Your task to perform on an android device: What's the weather going to be this weekend? Image 0: 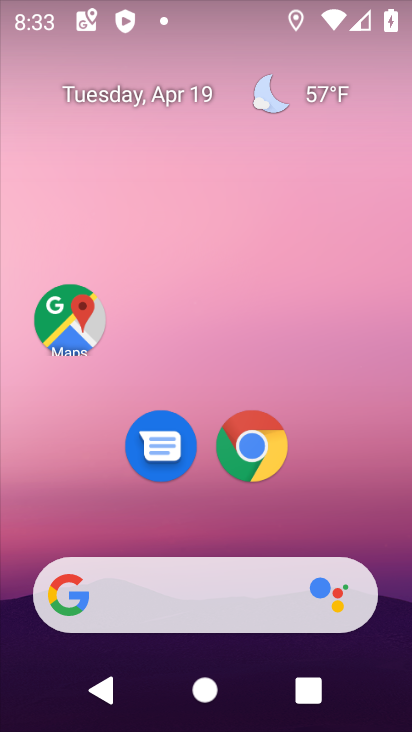
Step 0: click (263, 444)
Your task to perform on an android device: What's the weather going to be this weekend? Image 1: 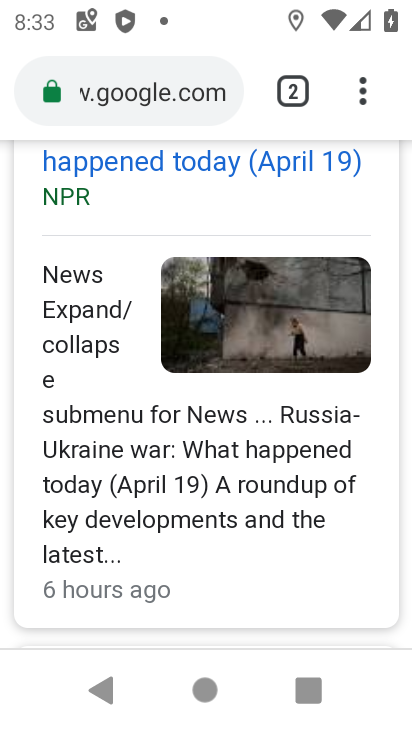
Step 1: click (288, 94)
Your task to perform on an android device: What's the weather going to be this weekend? Image 2: 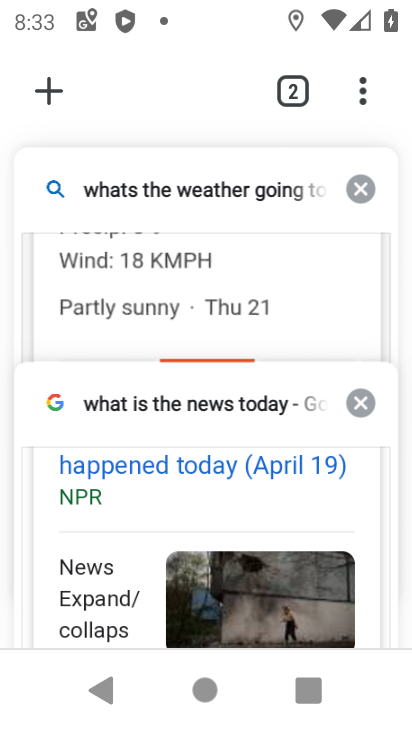
Step 2: click (337, 290)
Your task to perform on an android device: What's the weather going to be this weekend? Image 3: 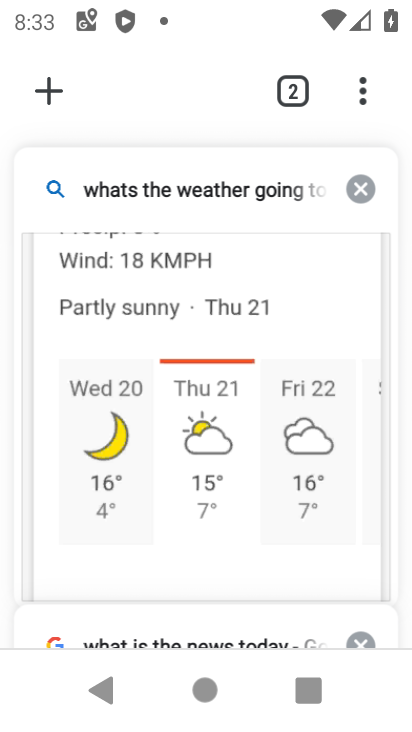
Step 3: drag from (326, 453) to (245, 398)
Your task to perform on an android device: What's the weather going to be this weekend? Image 4: 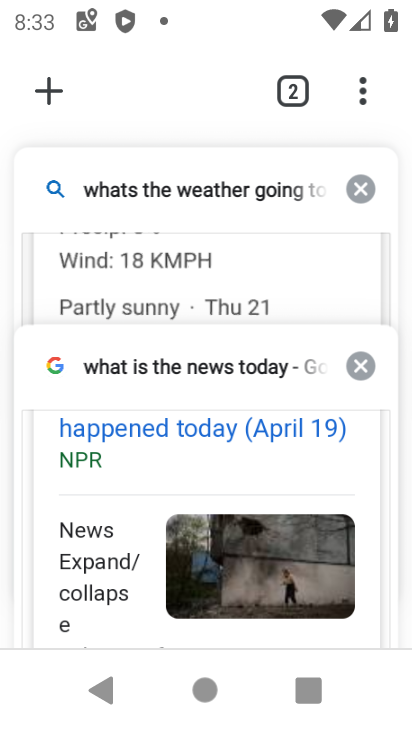
Step 4: click (43, 79)
Your task to perform on an android device: What's the weather going to be this weekend? Image 5: 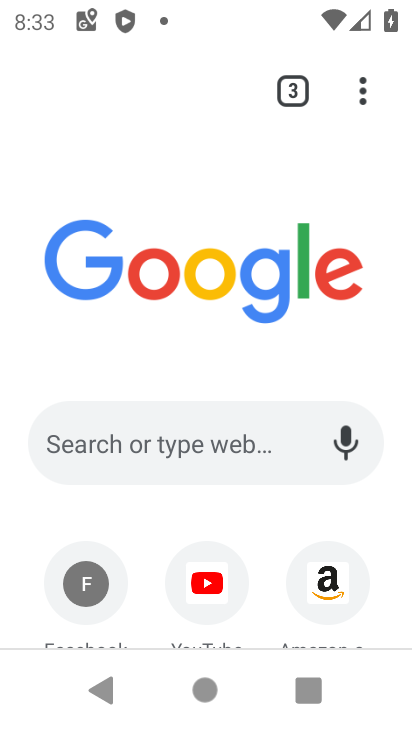
Step 5: click (96, 448)
Your task to perform on an android device: What's the weather going to be this weekend? Image 6: 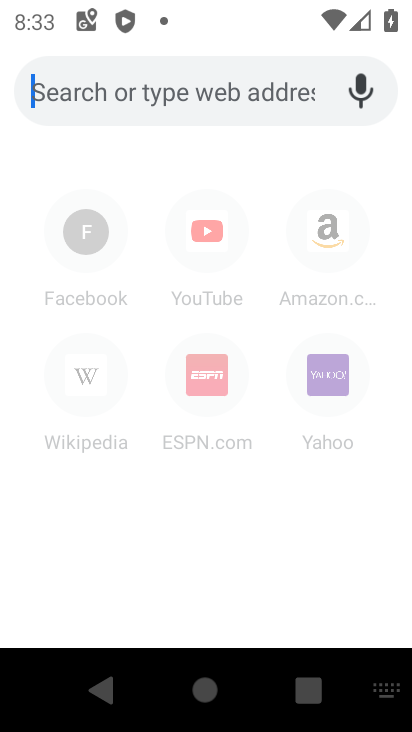
Step 6: type "whats the weather going to be this weekend"
Your task to perform on an android device: What's the weather going to be this weekend? Image 7: 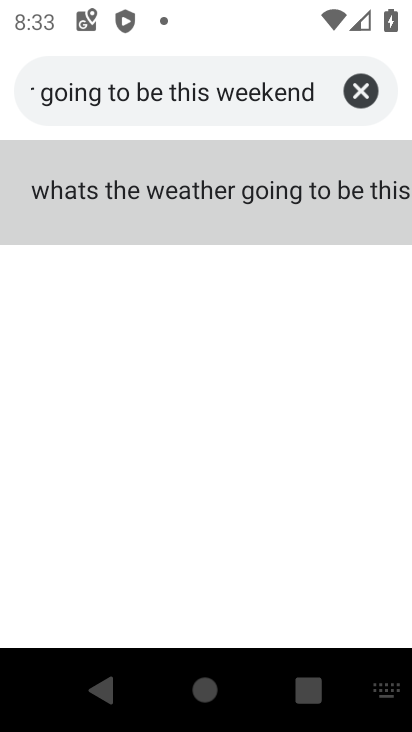
Step 7: click (232, 194)
Your task to perform on an android device: What's the weather going to be this weekend? Image 8: 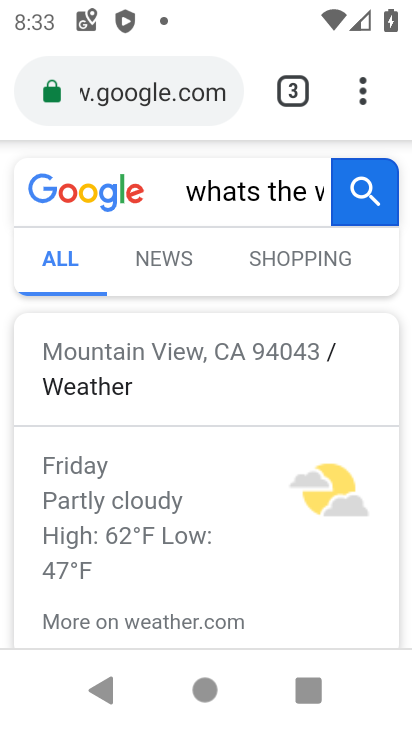
Step 8: drag from (177, 571) to (167, 210)
Your task to perform on an android device: What's the weather going to be this weekend? Image 9: 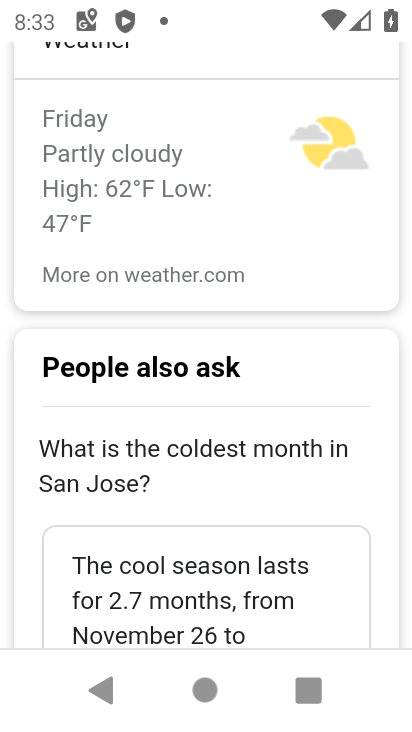
Step 9: drag from (183, 584) to (186, 282)
Your task to perform on an android device: What's the weather going to be this weekend? Image 10: 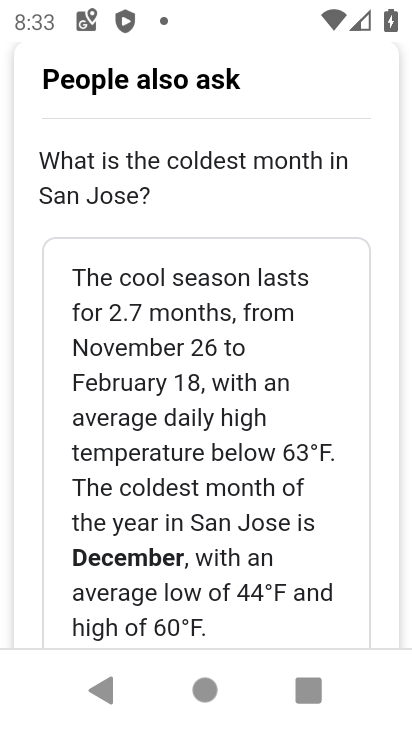
Step 10: drag from (212, 560) to (226, 229)
Your task to perform on an android device: What's the weather going to be this weekend? Image 11: 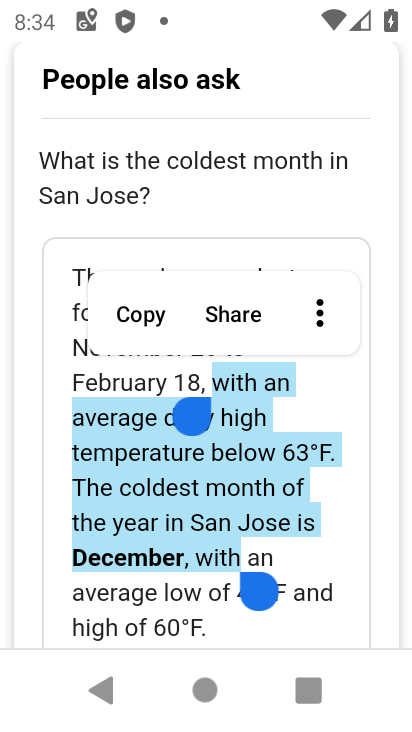
Step 11: drag from (364, 572) to (339, 113)
Your task to perform on an android device: What's the weather going to be this weekend? Image 12: 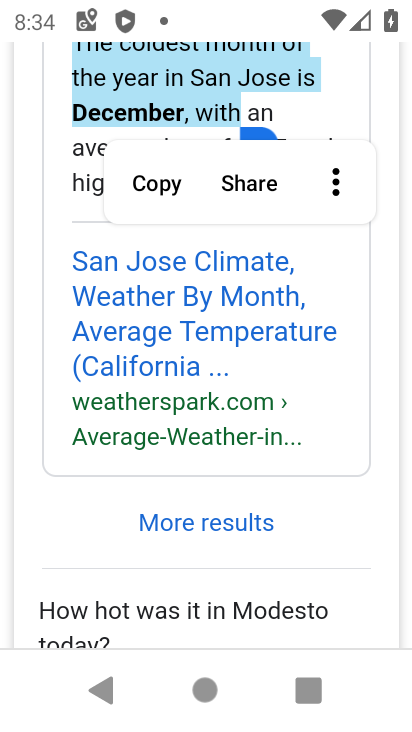
Step 12: drag from (327, 558) to (287, 501)
Your task to perform on an android device: What's the weather going to be this weekend? Image 13: 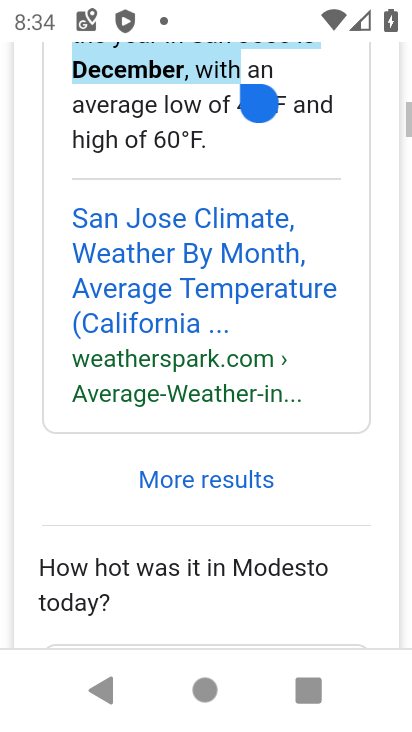
Step 13: drag from (332, 228) to (301, 543)
Your task to perform on an android device: What's the weather going to be this weekend? Image 14: 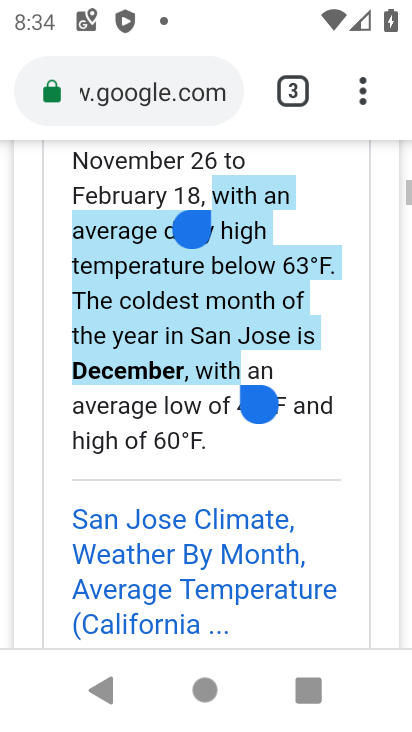
Step 14: drag from (347, 219) to (315, 640)
Your task to perform on an android device: What's the weather going to be this weekend? Image 15: 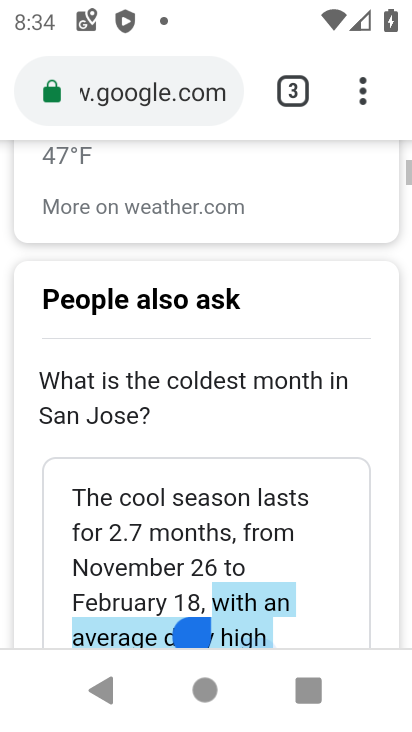
Step 15: drag from (315, 220) to (277, 514)
Your task to perform on an android device: What's the weather going to be this weekend? Image 16: 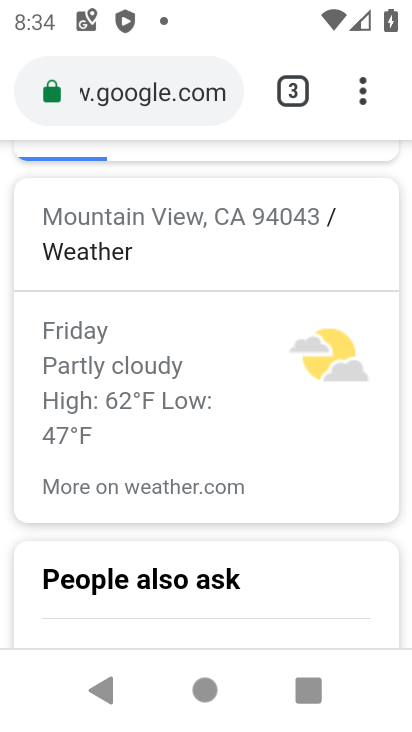
Step 16: click (123, 481)
Your task to perform on an android device: What's the weather going to be this weekend? Image 17: 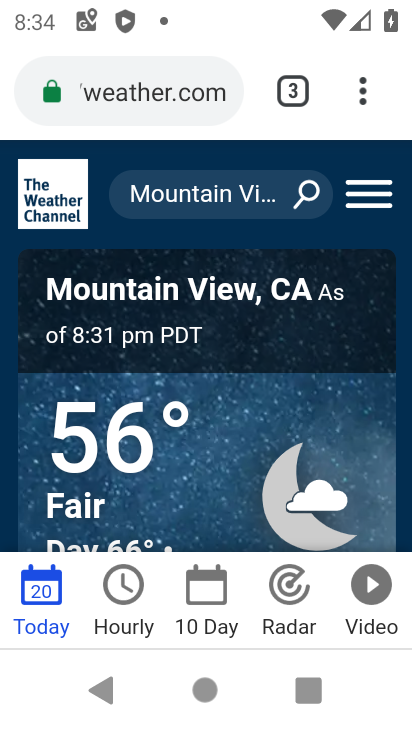
Step 17: drag from (135, 531) to (146, 237)
Your task to perform on an android device: What's the weather going to be this weekend? Image 18: 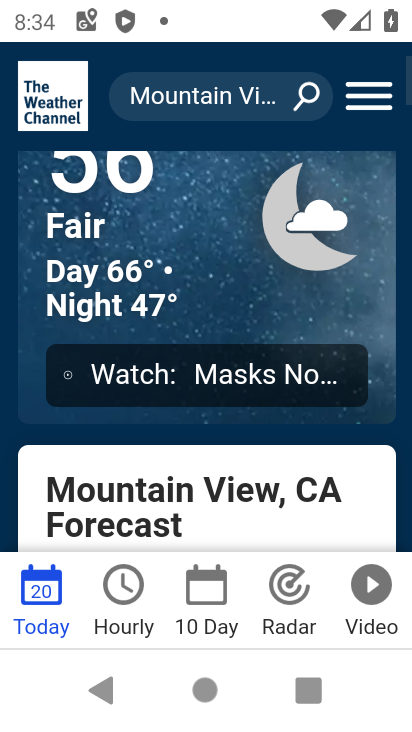
Step 18: drag from (211, 373) to (220, 218)
Your task to perform on an android device: What's the weather going to be this weekend? Image 19: 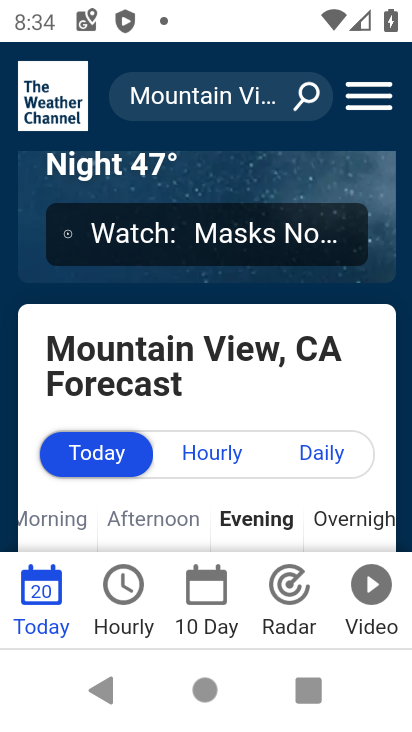
Step 19: drag from (219, 505) to (248, 263)
Your task to perform on an android device: What's the weather going to be this weekend? Image 20: 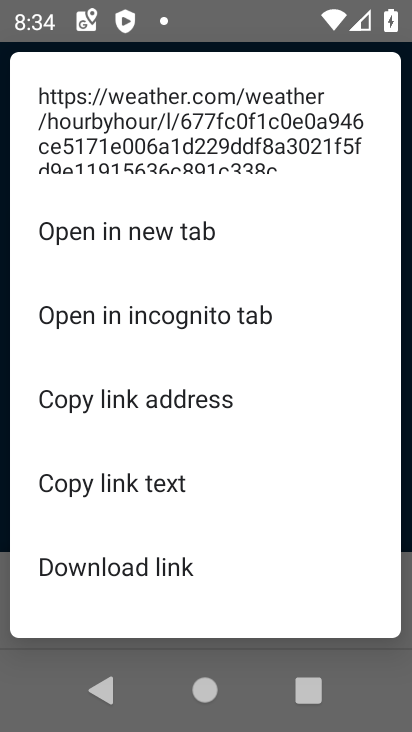
Step 20: press back button
Your task to perform on an android device: What's the weather going to be this weekend? Image 21: 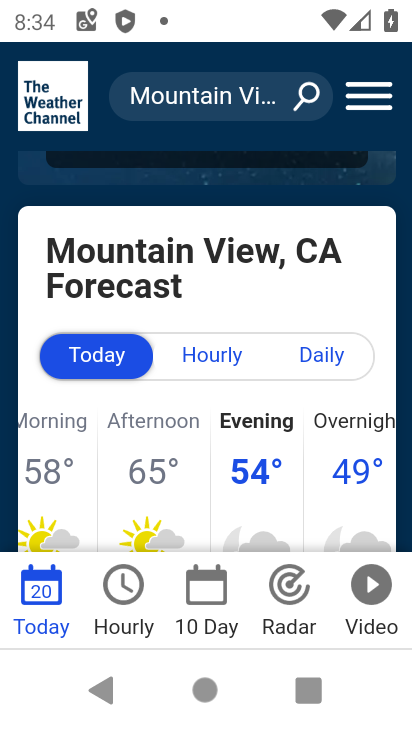
Step 21: drag from (237, 489) to (244, 200)
Your task to perform on an android device: What's the weather going to be this weekend? Image 22: 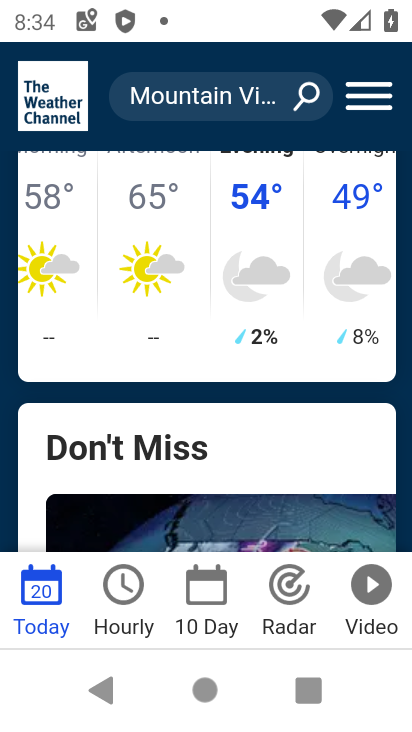
Step 22: drag from (234, 484) to (235, 193)
Your task to perform on an android device: What's the weather going to be this weekend? Image 23: 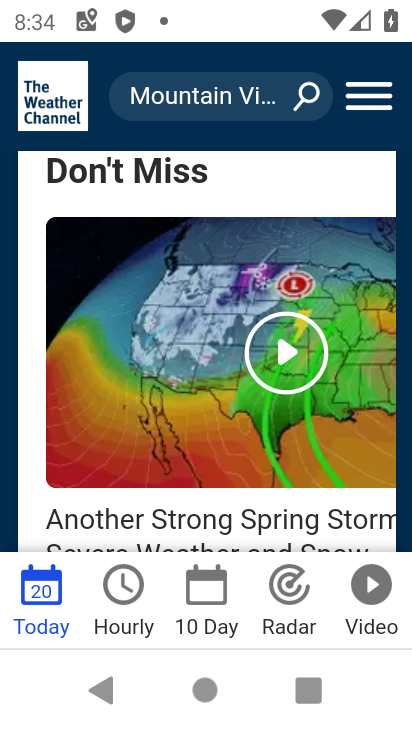
Step 23: click (201, 588)
Your task to perform on an android device: What's the weather going to be this weekend? Image 24: 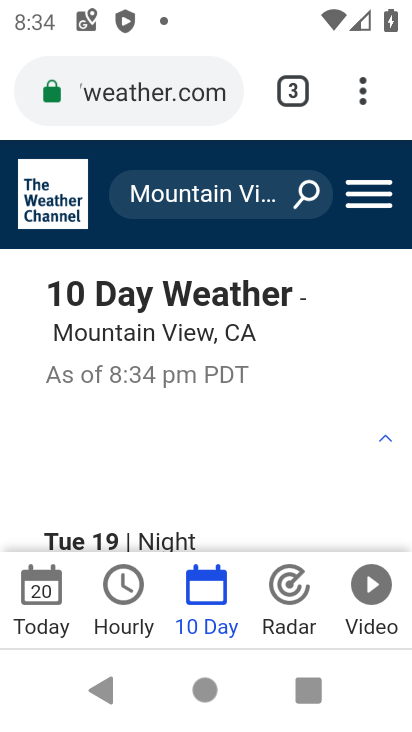
Step 24: task complete